Your task to perform on an android device: turn on airplane mode Image 0: 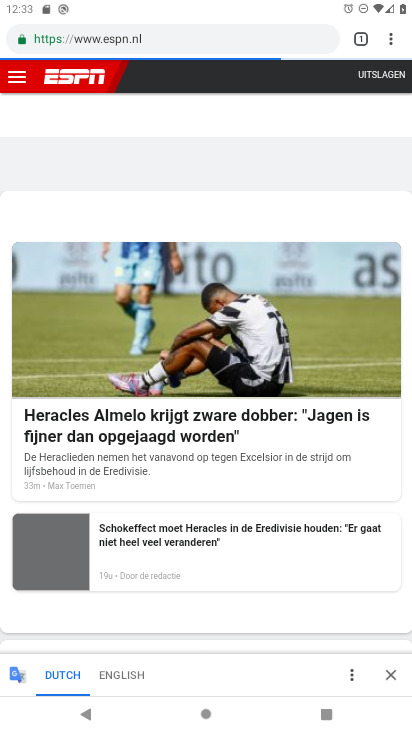
Step 0: press home button
Your task to perform on an android device: turn on airplane mode Image 1: 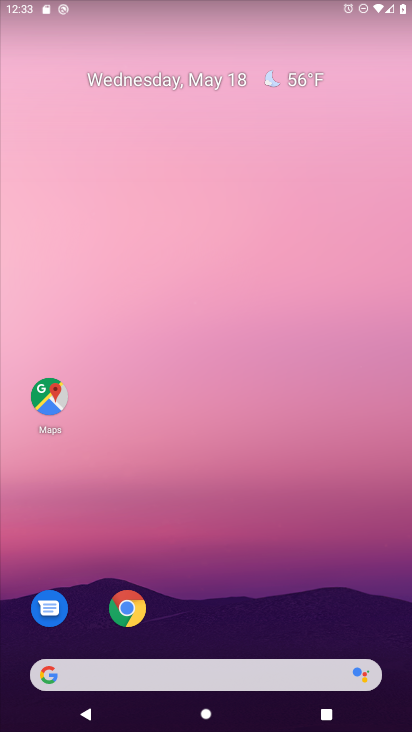
Step 1: drag from (265, 692) to (213, 173)
Your task to perform on an android device: turn on airplane mode Image 2: 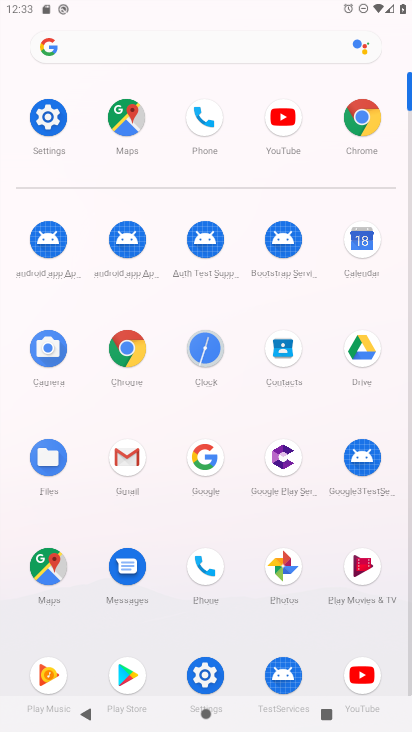
Step 2: click (52, 137)
Your task to perform on an android device: turn on airplane mode Image 3: 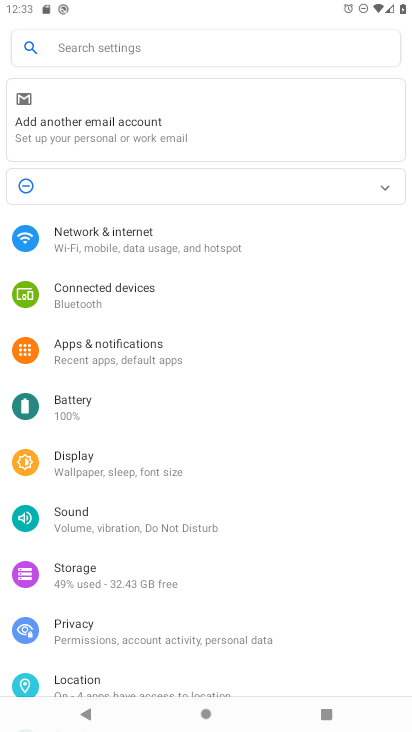
Step 3: click (72, 247)
Your task to perform on an android device: turn on airplane mode Image 4: 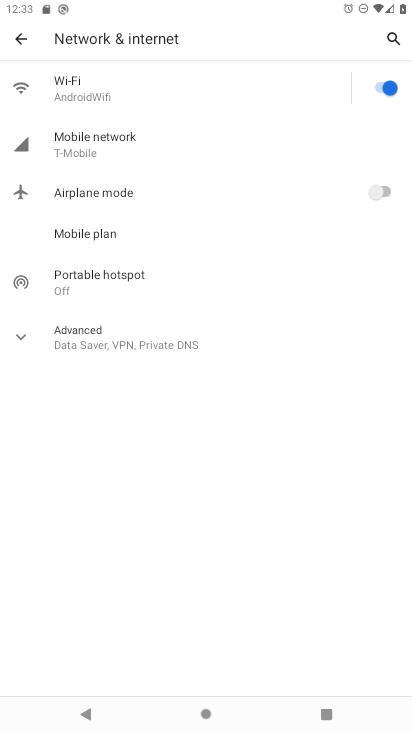
Step 4: click (328, 213)
Your task to perform on an android device: turn on airplane mode Image 5: 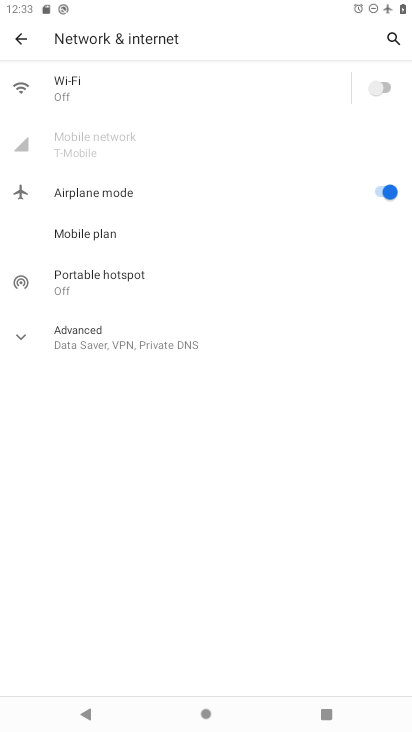
Step 5: task complete